Your task to perform on an android device: clear history in the chrome app Image 0: 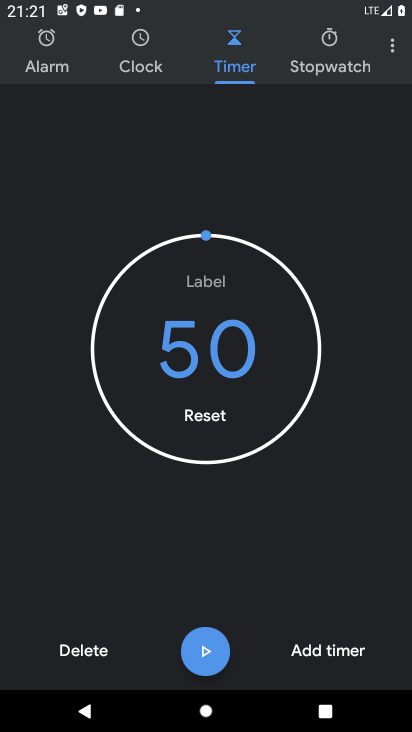
Step 0: press home button
Your task to perform on an android device: clear history in the chrome app Image 1: 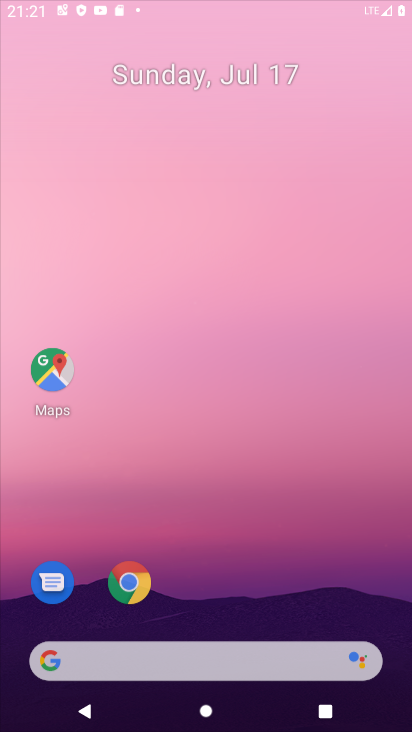
Step 1: drag from (251, 571) to (313, 24)
Your task to perform on an android device: clear history in the chrome app Image 2: 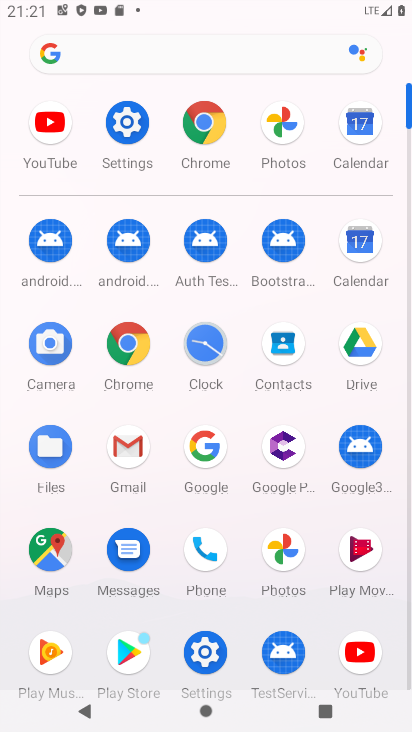
Step 2: click (191, 144)
Your task to perform on an android device: clear history in the chrome app Image 3: 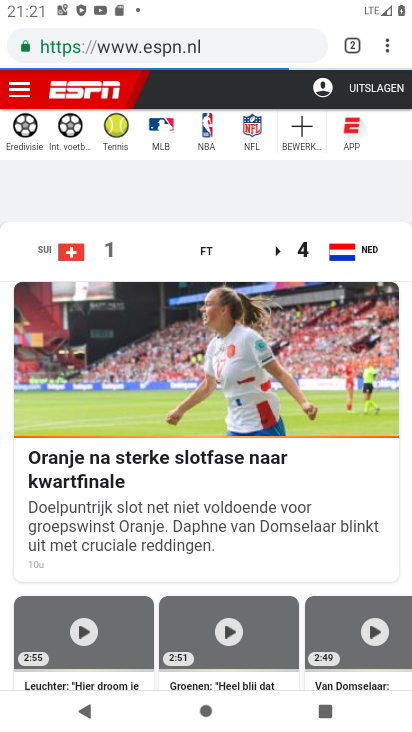
Step 3: drag from (395, 45) to (228, 246)
Your task to perform on an android device: clear history in the chrome app Image 4: 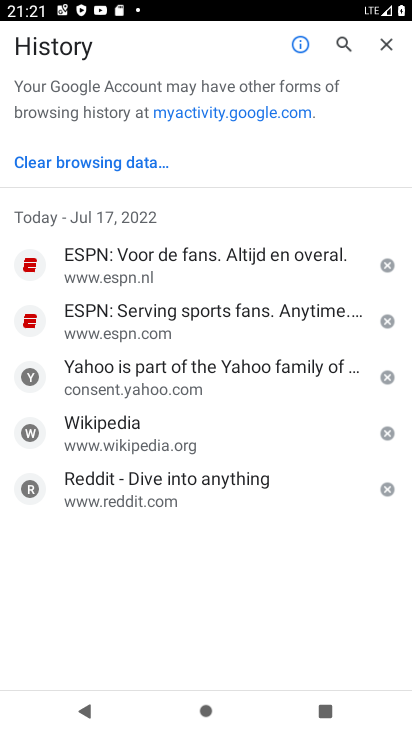
Step 4: click (74, 147)
Your task to perform on an android device: clear history in the chrome app Image 5: 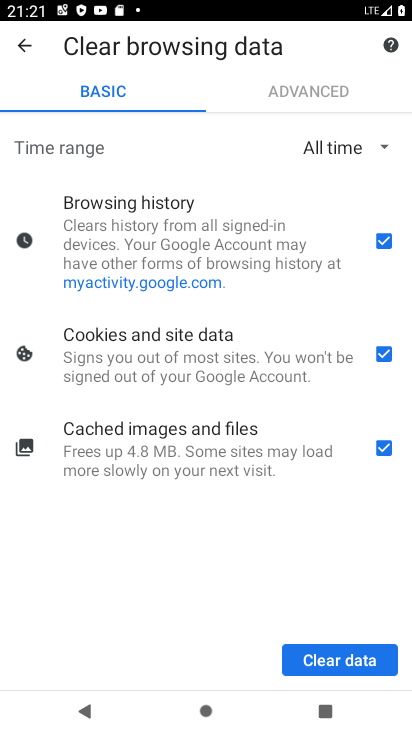
Step 5: click (321, 662)
Your task to perform on an android device: clear history in the chrome app Image 6: 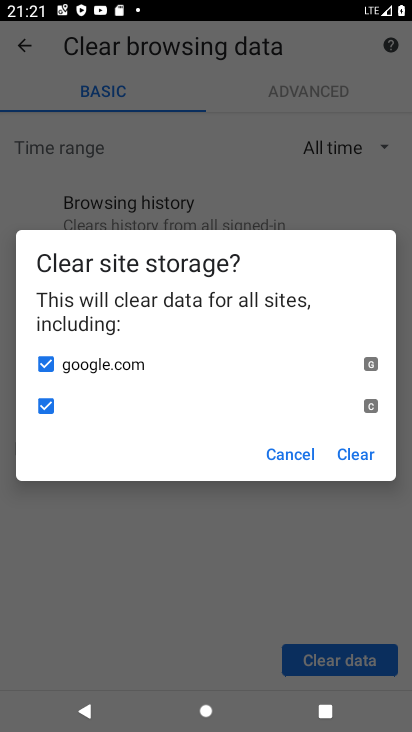
Step 6: click (336, 459)
Your task to perform on an android device: clear history in the chrome app Image 7: 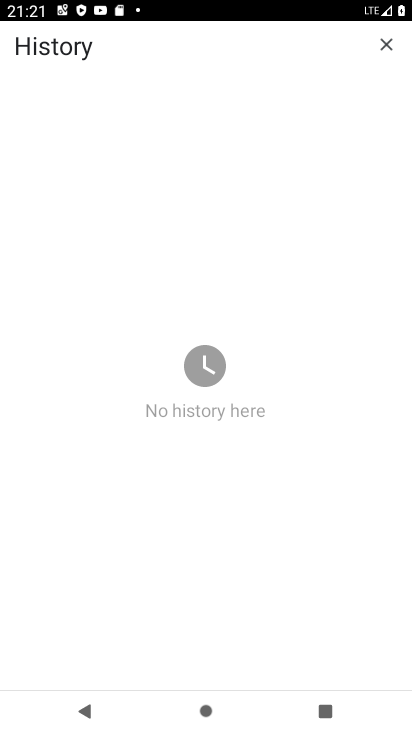
Step 7: task complete